Your task to perform on an android device: turn off airplane mode Image 0: 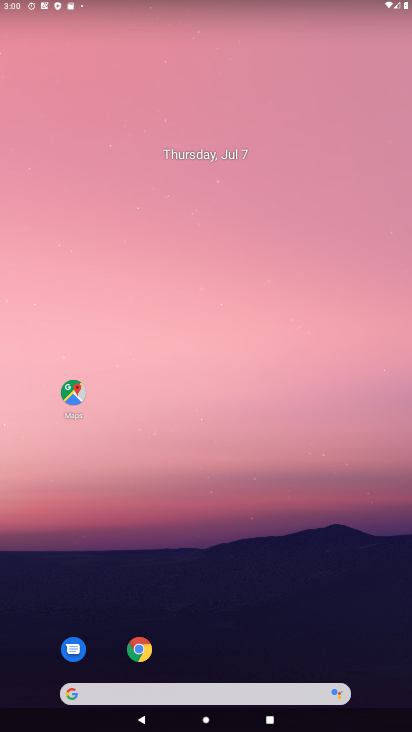
Step 0: drag from (201, 1) to (185, 710)
Your task to perform on an android device: turn off airplane mode Image 1: 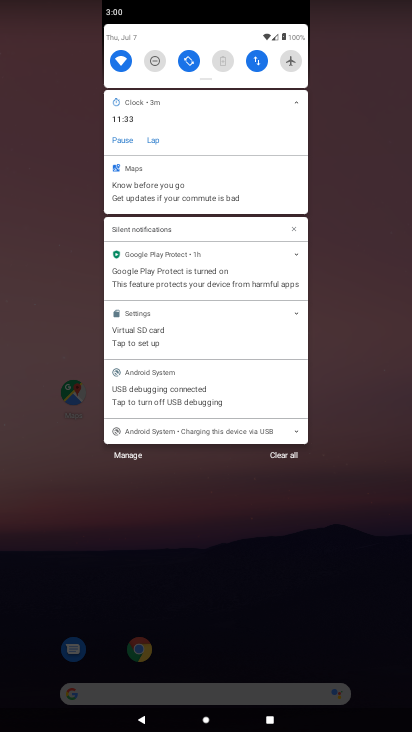
Step 1: task complete